Your task to perform on an android device: Go to location settings Image 0: 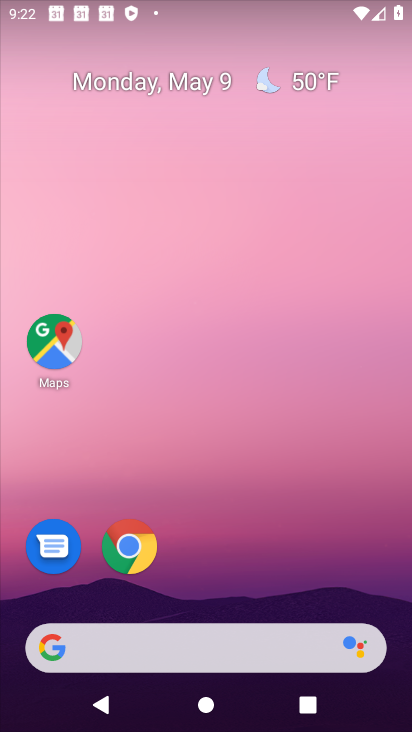
Step 0: drag from (215, 561) to (245, 215)
Your task to perform on an android device: Go to location settings Image 1: 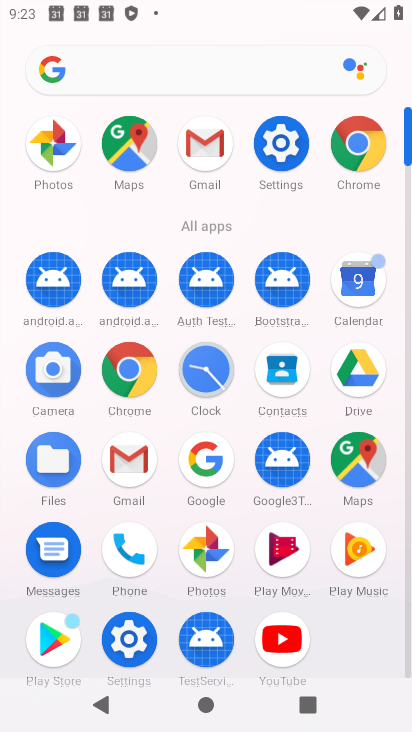
Step 1: click (137, 651)
Your task to perform on an android device: Go to location settings Image 2: 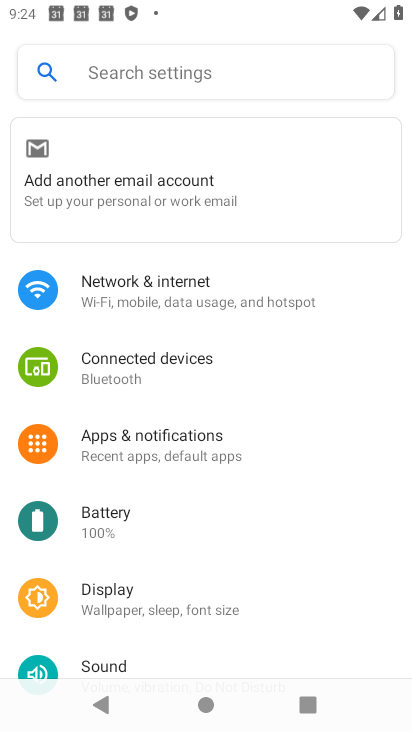
Step 2: drag from (199, 581) to (200, 325)
Your task to perform on an android device: Go to location settings Image 3: 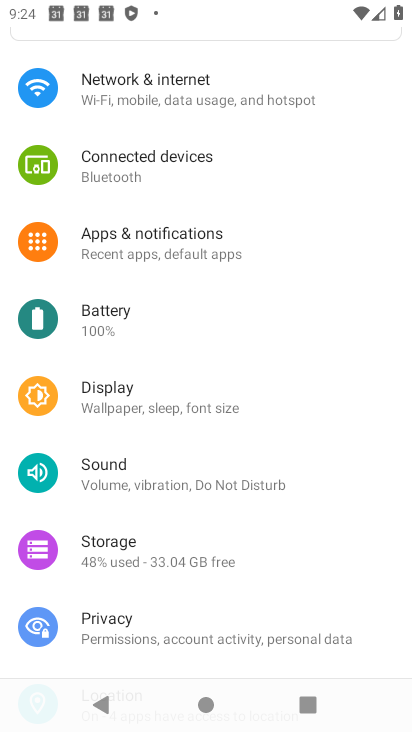
Step 3: drag from (179, 613) to (201, 372)
Your task to perform on an android device: Go to location settings Image 4: 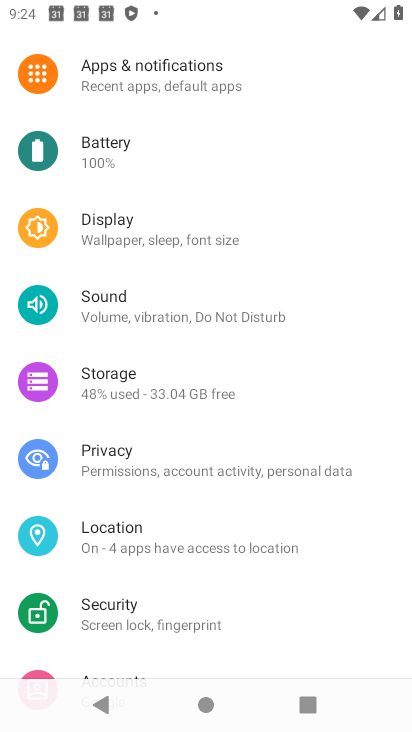
Step 4: click (192, 540)
Your task to perform on an android device: Go to location settings Image 5: 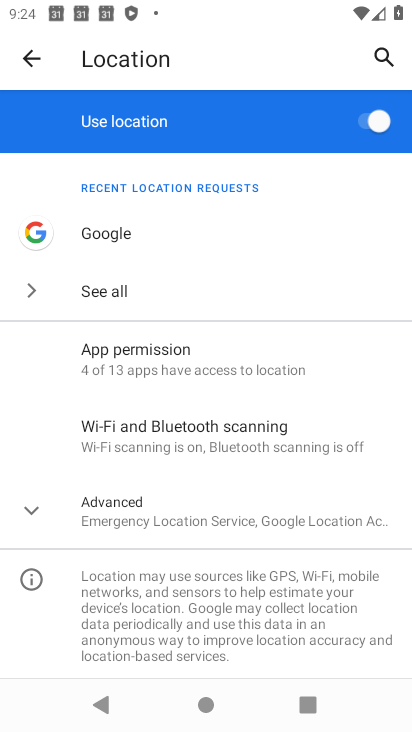
Step 5: task complete